Your task to perform on an android device: change alarm snooze length Image 0: 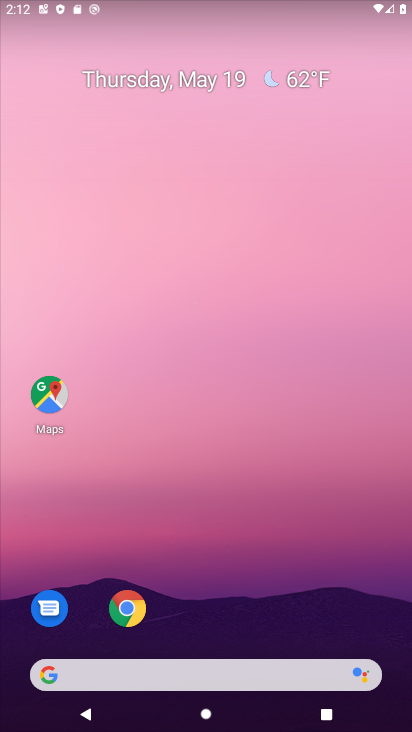
Step 0: drag from (179, 558) to (247, 119)
Your task to perform on an android device: change alarm snooze length Image 1: 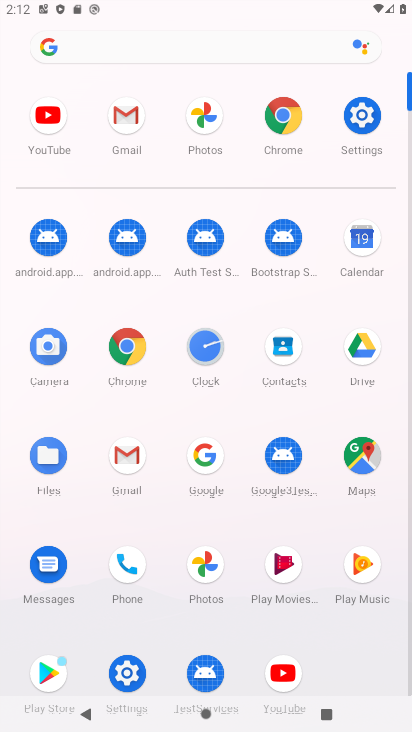
Step 1: click (190, 349)
Your task to perform on an android device: change alarm snooze length Image 2: 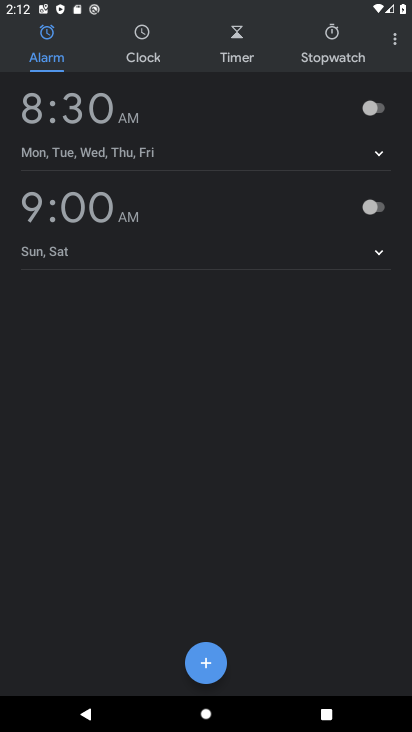
Step 2: click (395, 56)
Your task to perform on an android device: change alarm snooze length Image 3: 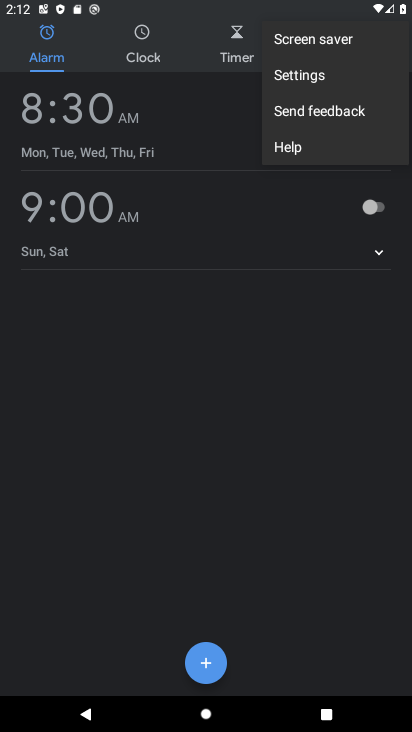
Step 3: click (321, 85)
Your task to perform on an android device: change alarm snooze length Image 4: 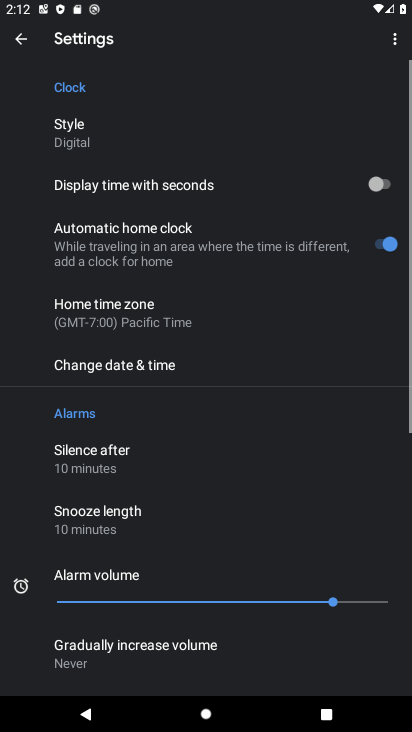
Step 4: click (192, 523)
Your task to perform on an android device: change alarm snooze length Image 5: 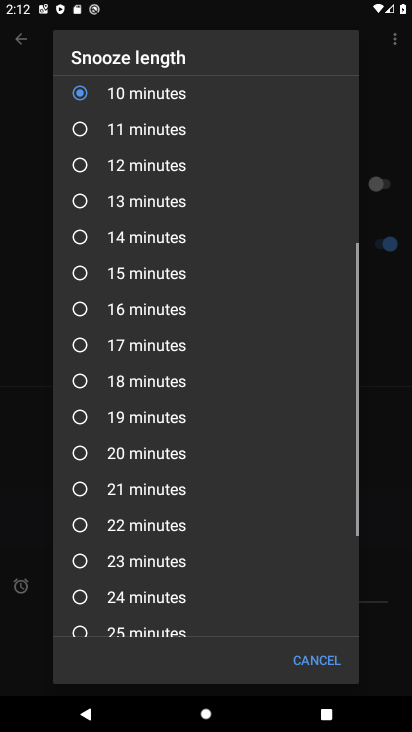
Step 5: click (219, 351)
Your task to perform on an android device: change alarm snooze length Image 6: 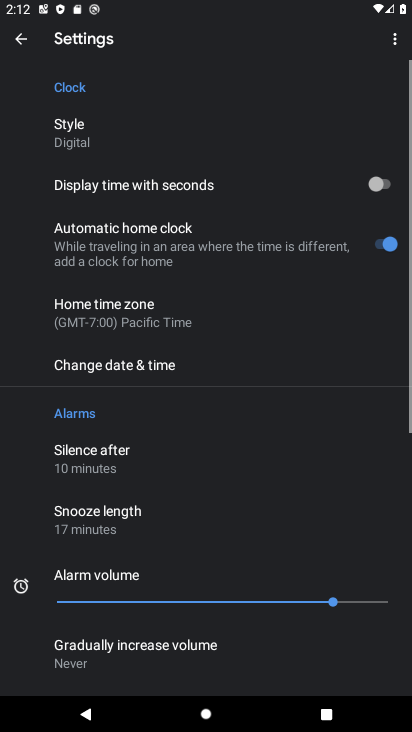
Step 6: task complete